Your task to perform on an android device: check out phone information Image 0: 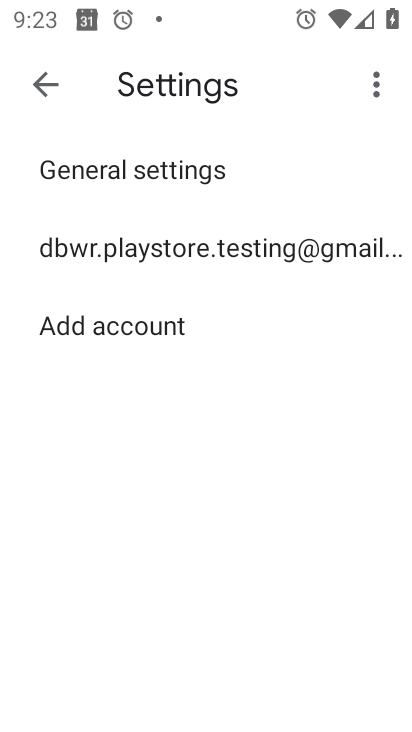
Step 0: press back button
Your task to perform on an android device: check out phone information Image 1: 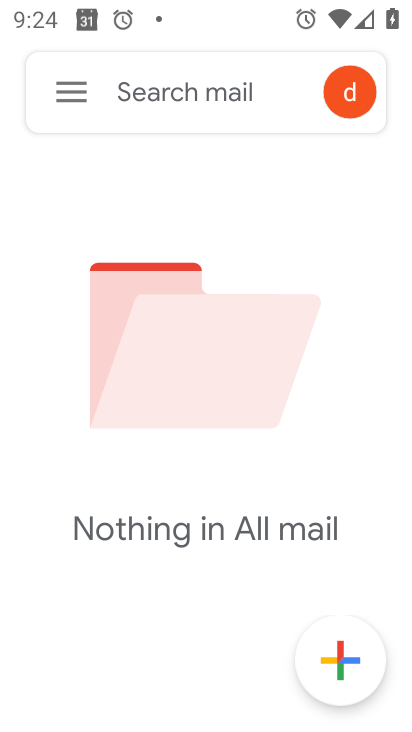
Step 1: press back button
Your task to perform on an android device: check out phone information Image 2: 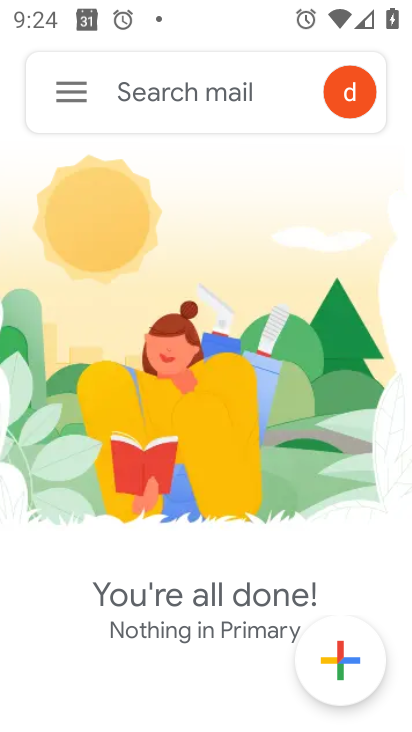
Step 2: press home button
Your task to perform on an android device: check out phone information Image 3: 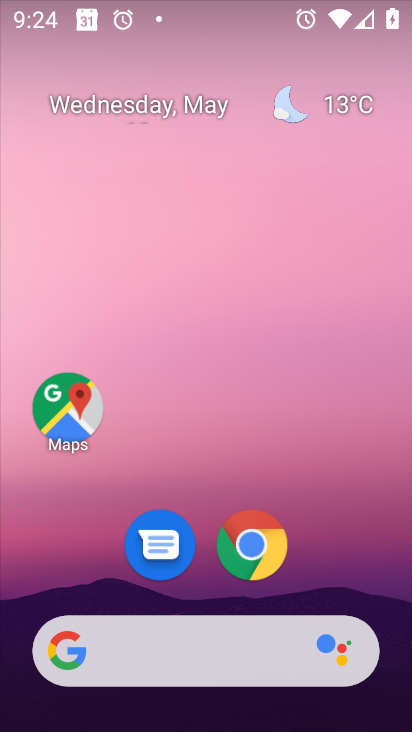
Step 3: drag from (332, 532) to (274, 15)
Your task to perform on an android device: check out phone information Image 4: 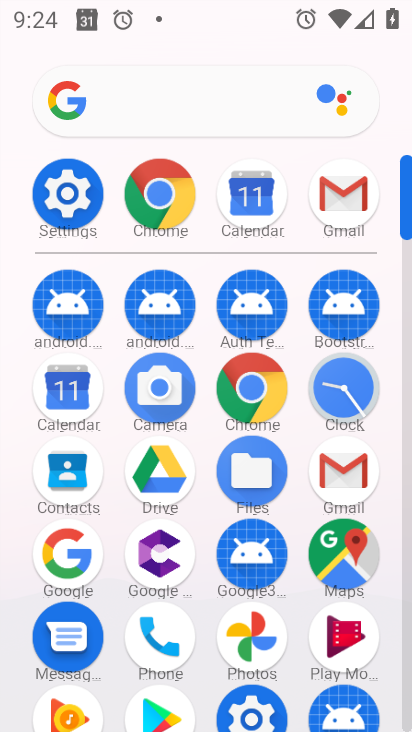
Step 4: click (64, 188)
Your task to perform on an android device: check out phone information Image 5: 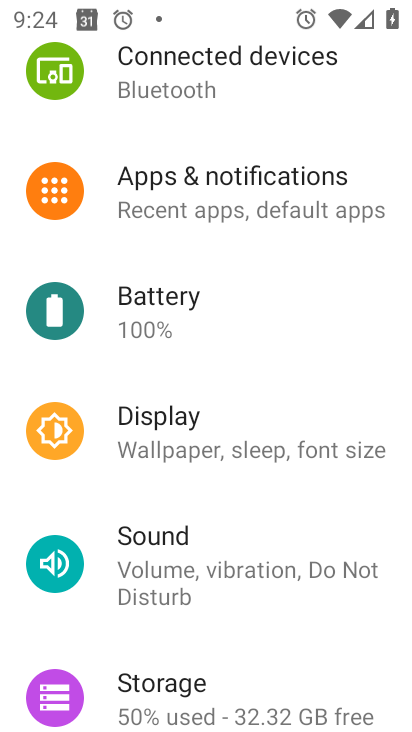
Step 5: drag from (235, 594) to (243, 90)
Your task to perform on an android device: check out phone information Image 6: 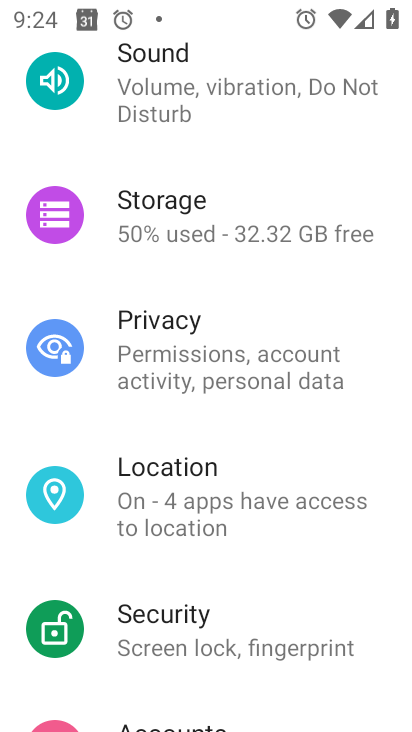
Step 6: drag from (238, 516) to (245, 74)
Your task to perform on an android device: check out phone information Image 7: 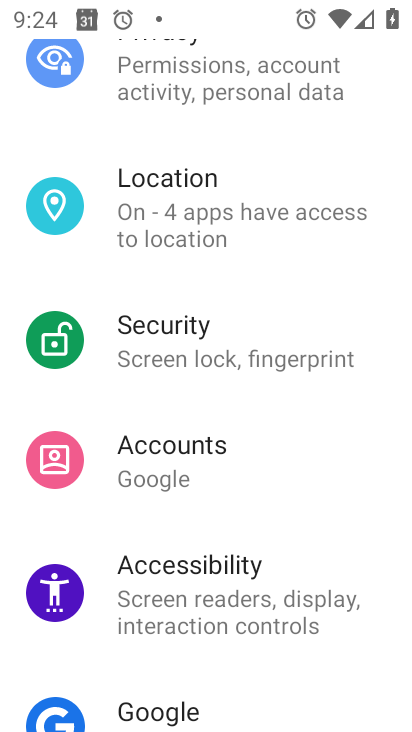
Step 7: drag from (244, 407) to (247, 115)
Your task to perform on an android device: check out phone information Image 8: 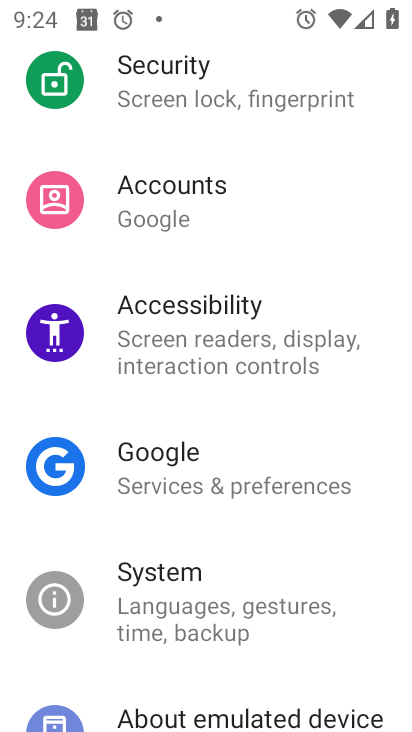
Step 8: drag from (254, 589) to (260, 138)
Your task to perform on an android device: check out phone information Image 9: 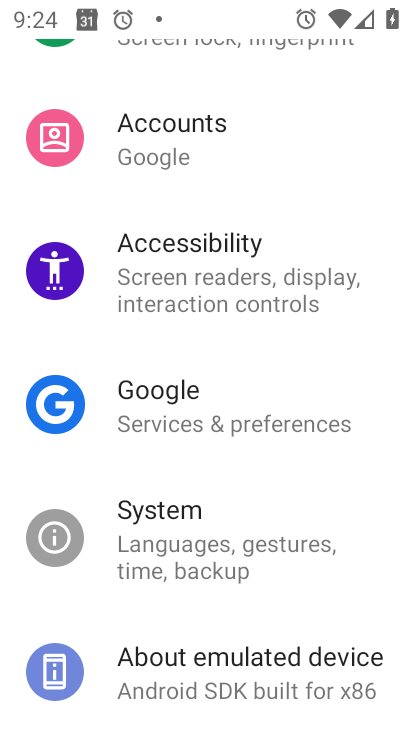
Step 9: drag from (248, 563) to (241, 199)
Your task to perform on an android device: check out phone information Image 10: 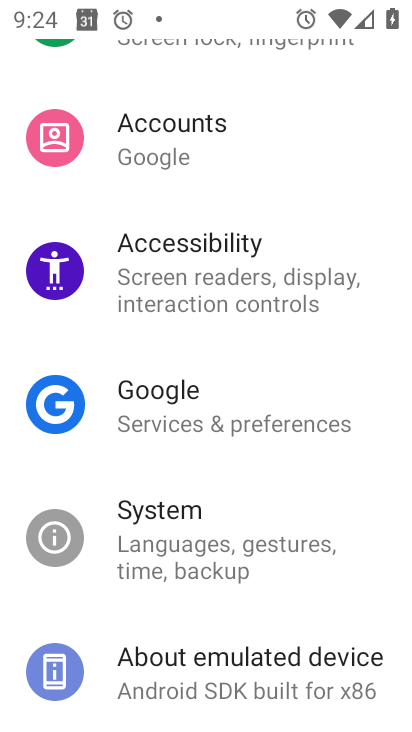
Step 10: click (213, 665)
Your task to perform on an android device: check out phone information Image 11: 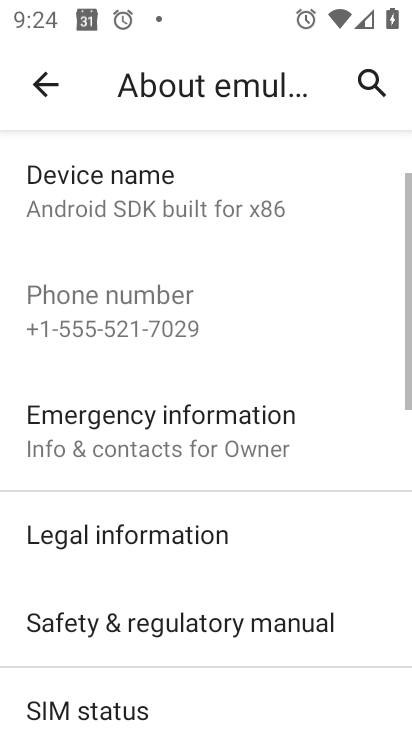
Step 11: drag from (245, 587) to (255, 189)
Your task to perform on an android device: check out phone information Image 12: 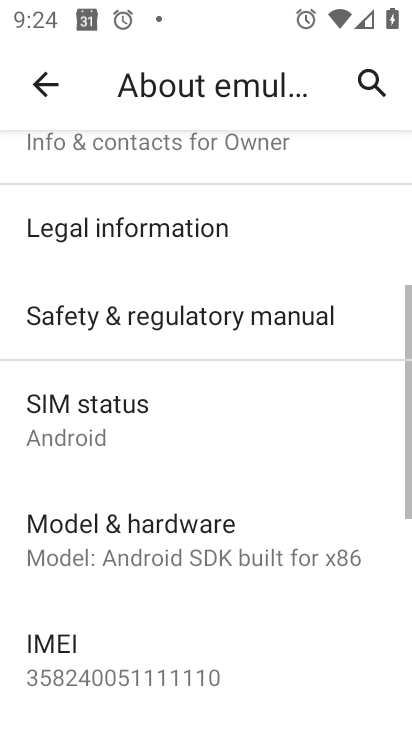
Step 12: drag from (230, 579) to (260, 188)
Your task to perform on an android device: check out phone information Image 13: 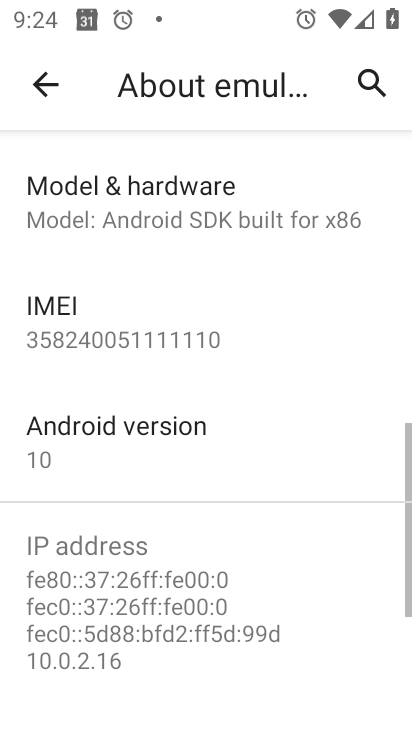
Step 13: drag from (262, 203) to (259, 620)
Your task to perform on an android device: check out phone information Image 14: 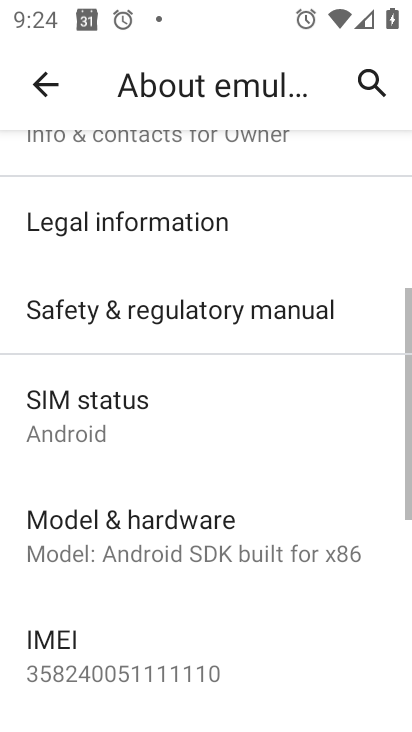
Step 14: drag from (252, 607) to (249, 179)
Your task to perform on an android device: check out phone information Image 15: 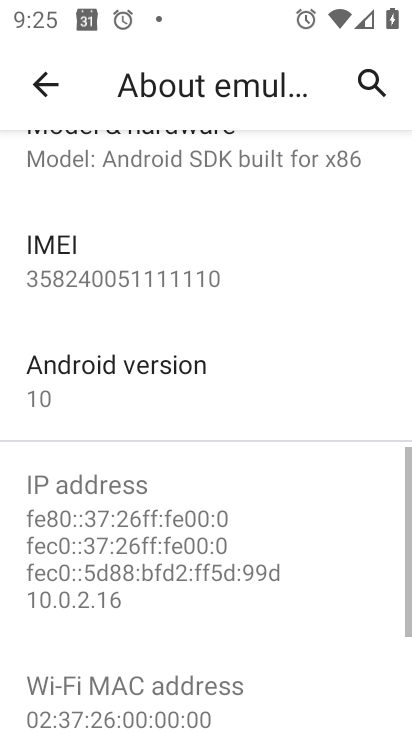
Step 15: drag from (312, 242) to (282, 609)
Your task to perform on an android device: check out phone information Image 16: 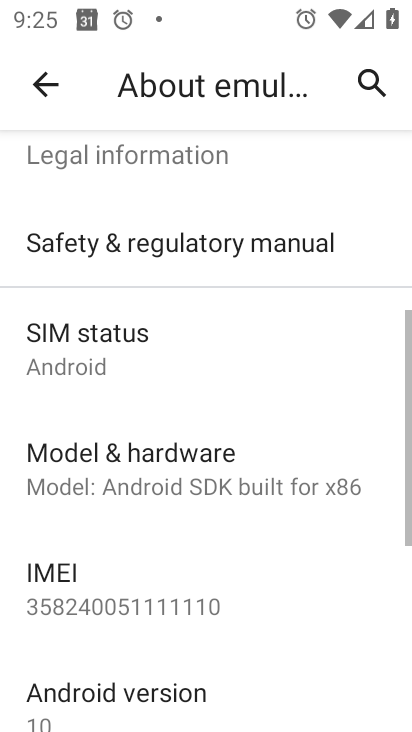
Step 16: drag from (291, 275) to (275, 601)
Your task to perform on an android device: check out phone information Image 17: 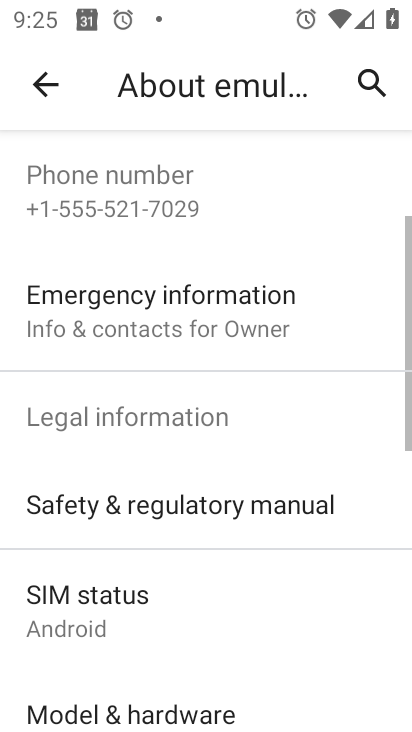
Step 17: drag from (287, 243) to (282, 530)
Your task to perform on an android device: check out phone information Image 18: 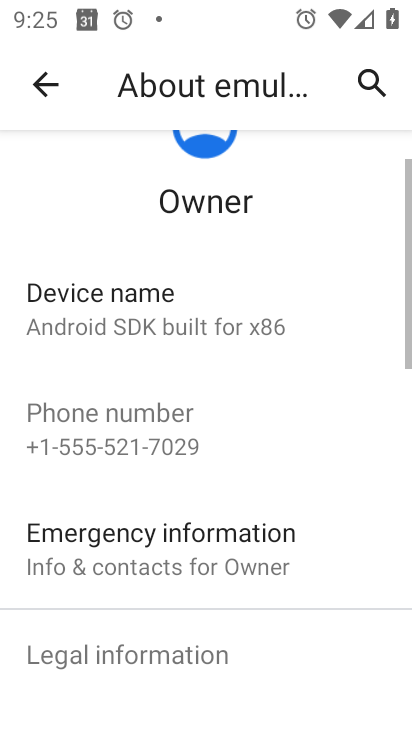
Step 18: drag from (232, 600) to (238, 199)
Your task to perform on an android device: check out phone information Image 19: 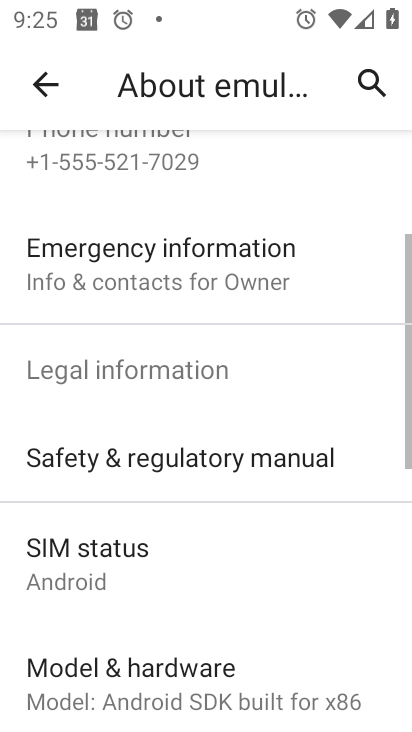
Step 19: drag from (250, 656) to (289, 180)
Your task to perform on an android device: check out phone information Image 20: 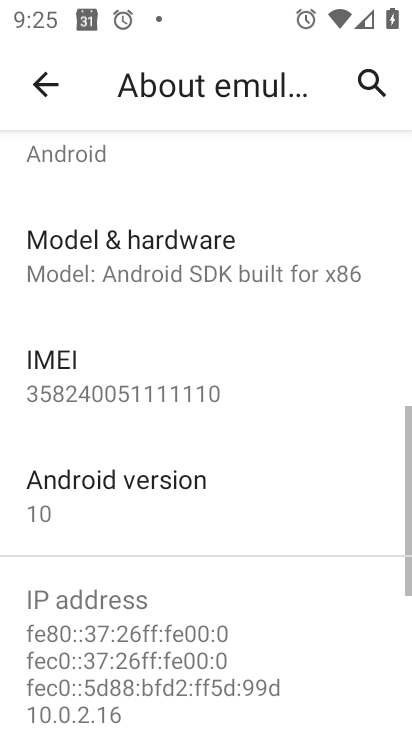
Step 20: drag from (254, 543) to (306, 176)
Your task to perform on an android device: check out phone information Image 21: 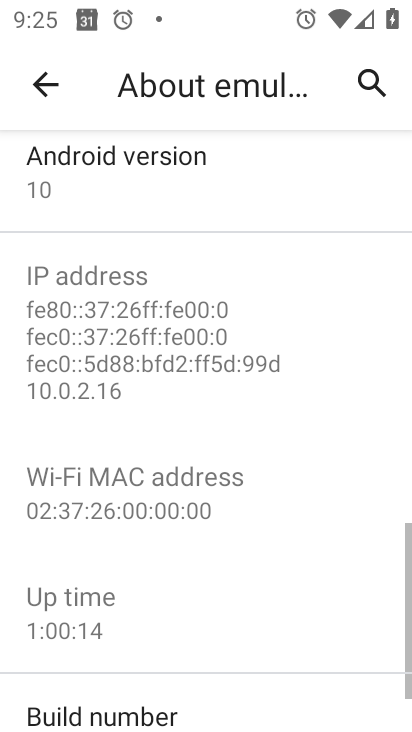
Step 21: drag from (295, 541) to (294, 160)
Your task to perform on an android device: check out phone information Image 22: 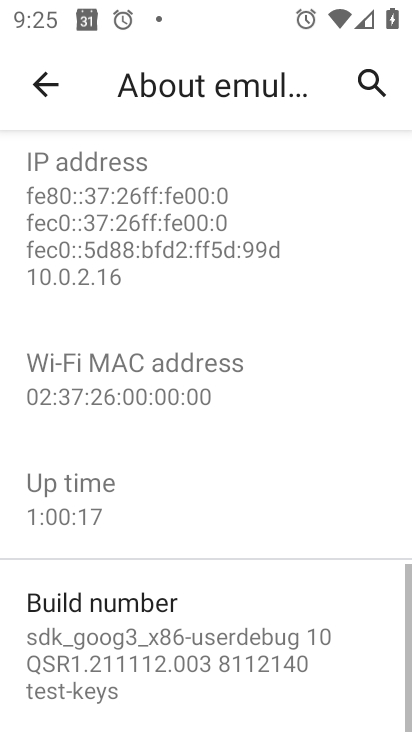
Step 22: drag from (309, 188) to (301, 599)
Your task to perform on an android device: check out phone information Image 23: 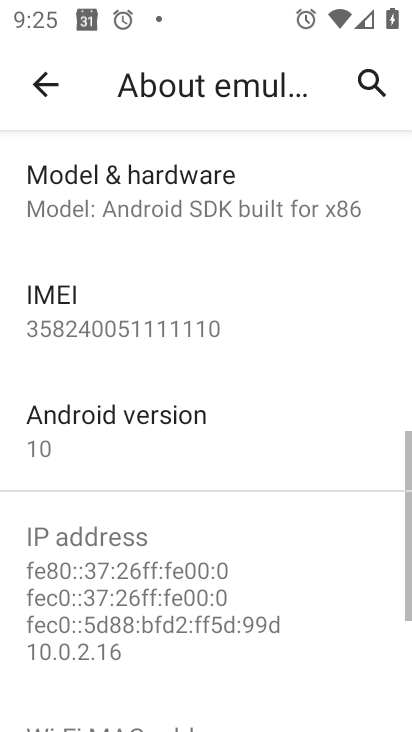
Step 23: drag from (320, 260) to (312, 567)
Your task to perform on an android device: check out phone information Image 24: 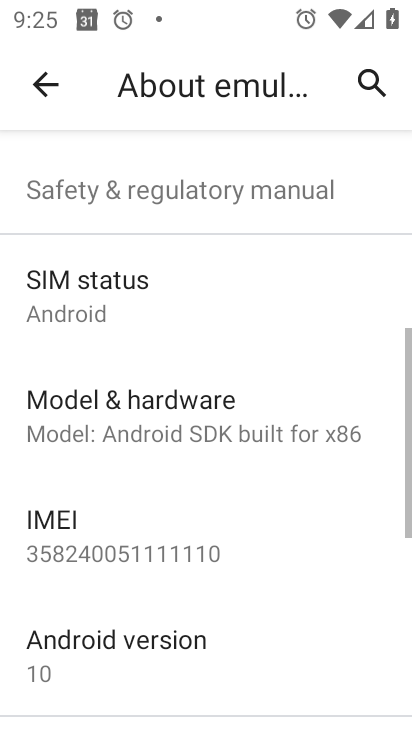
Step 24: drag from (316, 206) to (313, 569)
Your task to perform on an android device: check out phone information Image 25: 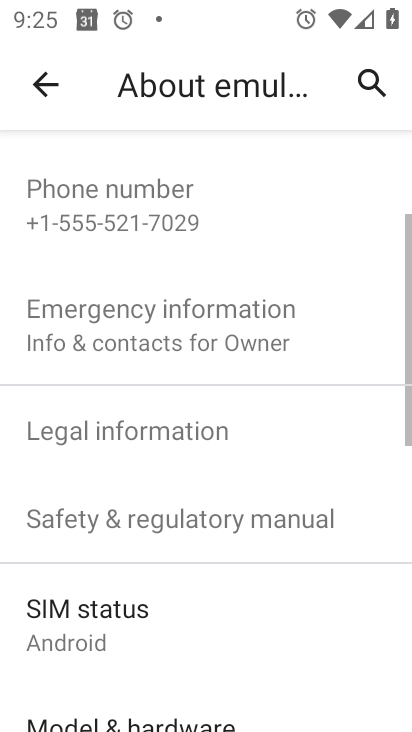
Step 25: drag from (316, 264) to (285, 524)
Your task to perform on an android device: check out phone information Image 26: 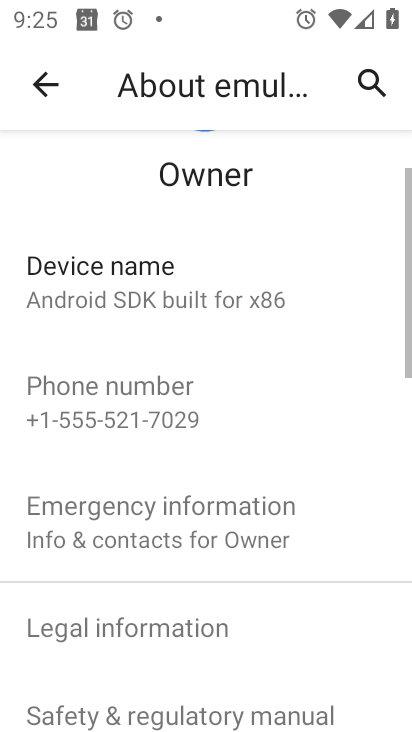
Step 26: drag from (306, 304) to (294, 610)
Your task to perform on an android device: check out phone information Image 27: 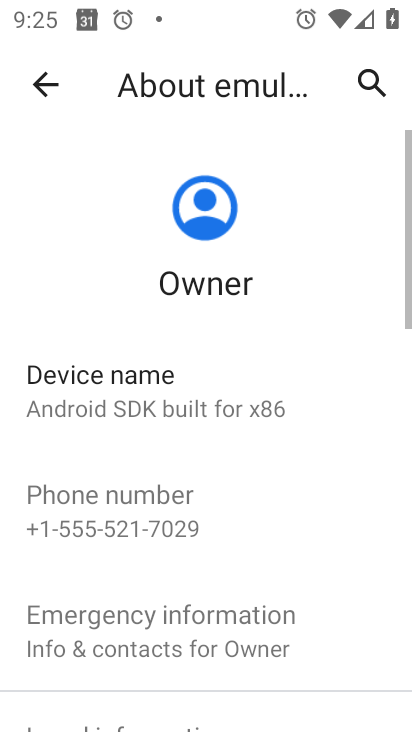
Step 27: click (51, 81)
Your task to perform on an android device: check out phone information Image 28: 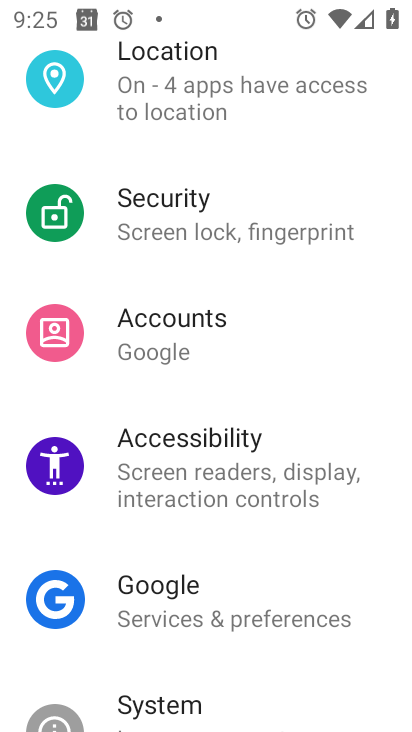
Step 28: drag from (294, 635) to (336, 244)
Your task to perform on an android device: check out phone information Image 29: 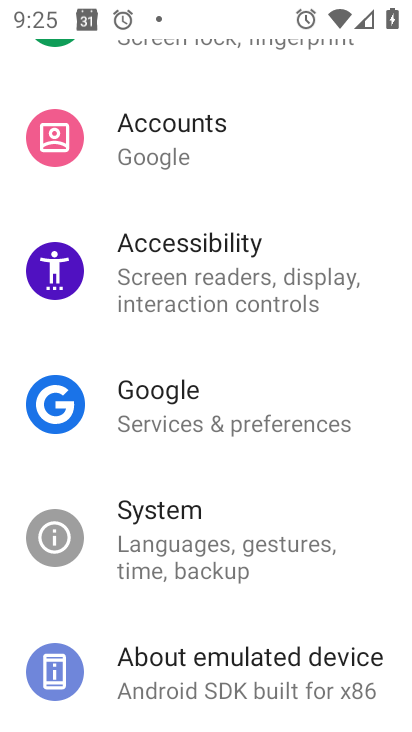
Step 29: click (281, 675)
Your task to perform on an android device: check out phone information Image 30: 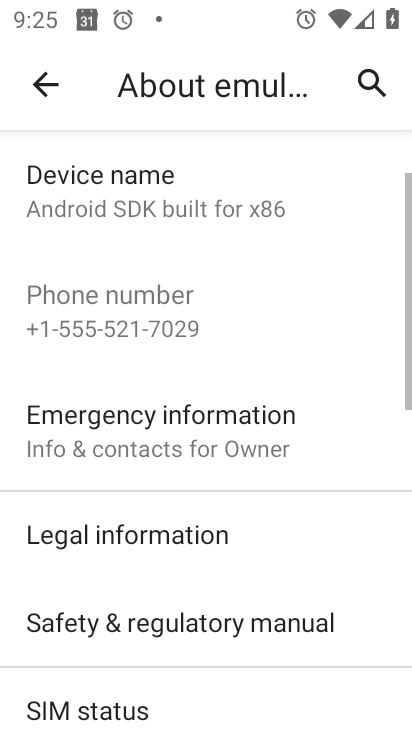
Step 30: task complete